Your task to perform on an android device: Go to Google maps Image 0: 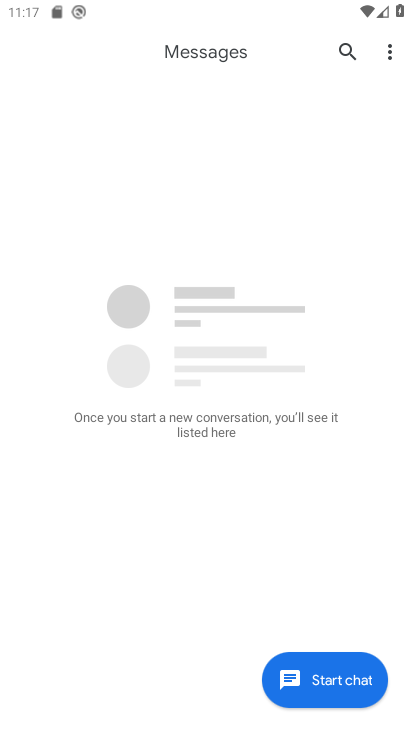
Step 0: press home button
Your task to perform on an android device: Go to Google maps Image 1: 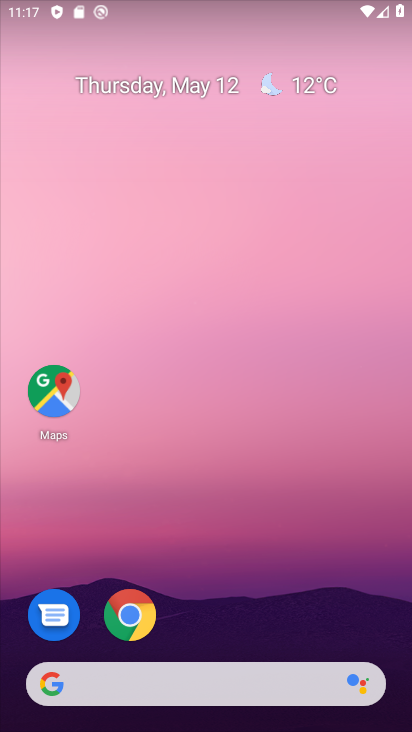
Step 1: click (54, 387)
Your task to perform on an android device: Go to Google maps Image 2: 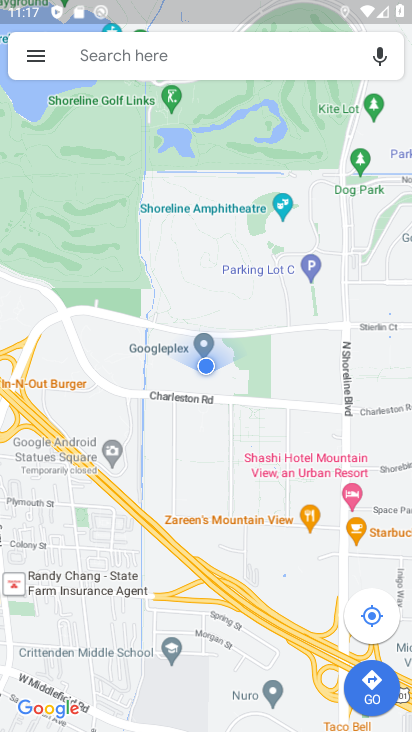
Step 2: task complete